Your task to perform on an android device: Open internet settings Image 0: 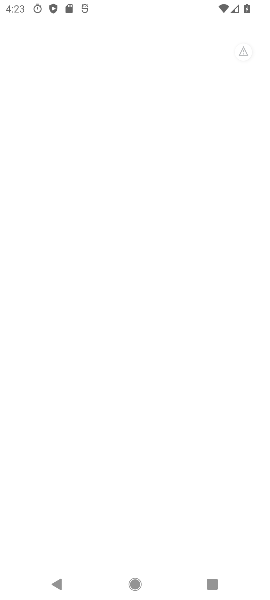
Step 0: press back button
Your task to perform on an android device: Open internet settings Image 1: 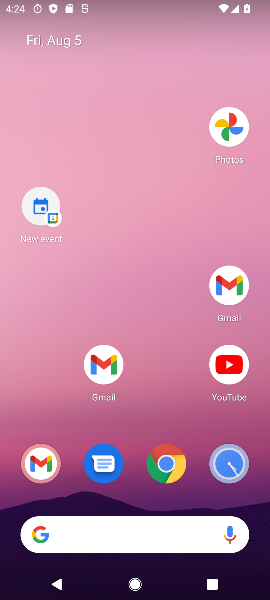
Step 1: drag from (117, 501) to (133, 183)
Your task to perform on an android device: Open internet settings Image 2: 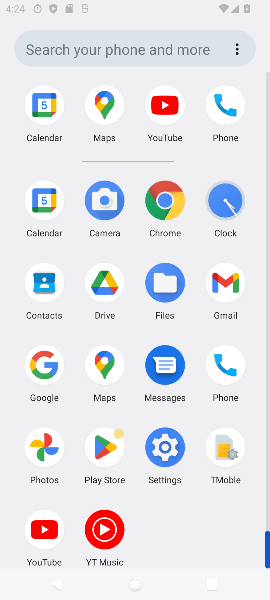
Step 2: drag from (225, 332) to (225, 56)
Your task to perform on an android device: Open internet settings Image 3: 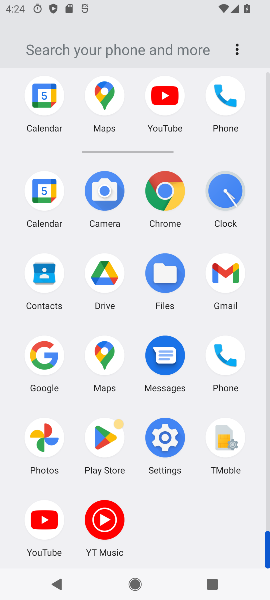
Step 3: click (169, 425)
Your task to perform on an android device: Open internet settings Image 4: 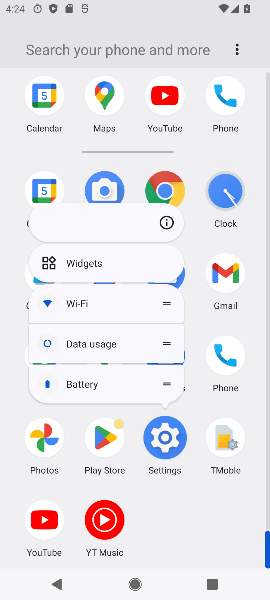
Step 4: click (165, 436)
Your task to perform on an android device: Open internet settings Image 5: 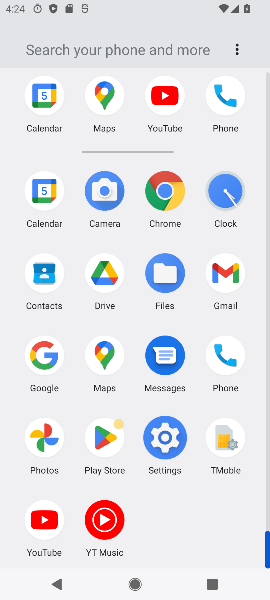
Step 5: click (165, 437)
Your task to perform on an android device: Open internet settings Image 6: 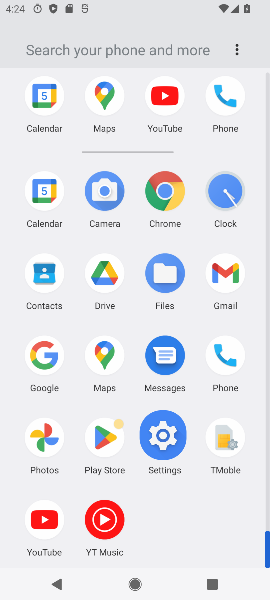
Step 6: click (164, 438)
Your task to perform on an android device: Open internet settings Image 7: 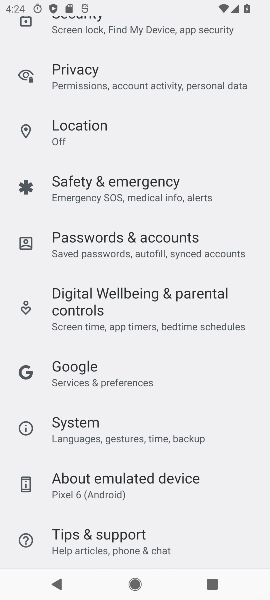
Step 7: click (164, 438)
Your task to perform on an android device: Open internet settings Image 8: 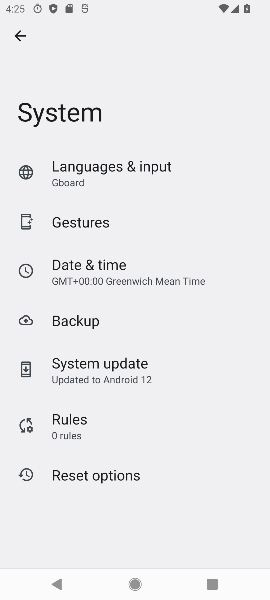
Step 8: click (15, 33)
Your task to perform on an android device: Open internet settings Image 9: 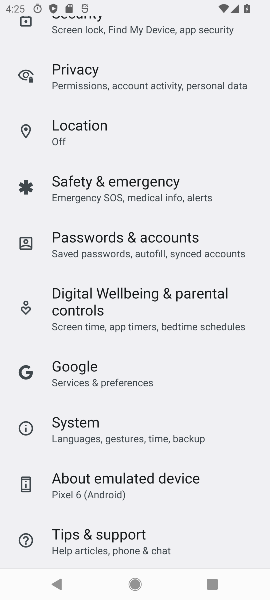
Step 9: drag from (92, 127) to (98, 384)
Your task to perform on an android device: Open internet settings Image 10: 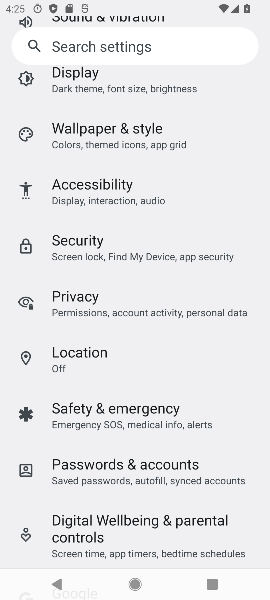
Step 10: drag from (76, 162) to (122, 410)
Your task to perform on an android device: Open internet settings Image 11: 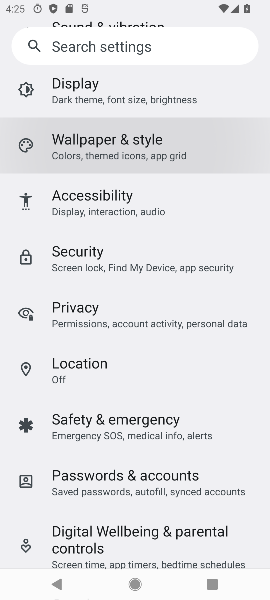
Step 11: drag from (79, 201) to (142, 431)
Your task to perform on an android device: Open internet settings Image 12: 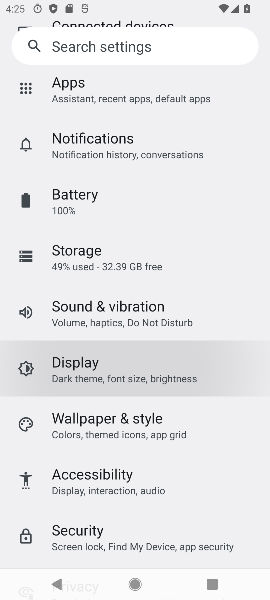
Step 12: drag from (87, 177) to (124, 432)
Your task to perform on an android device: Open internet settings Image 13: 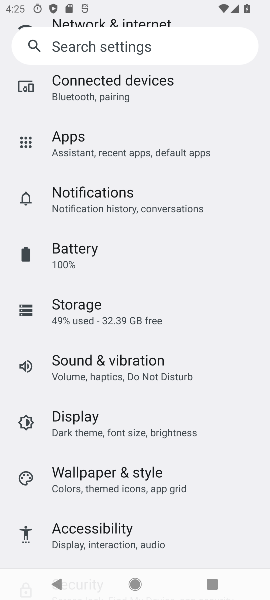
Step 13: drag from (76, 188) to (117, 409)
Your task to perform on an android device: Open internet settings Image 14: 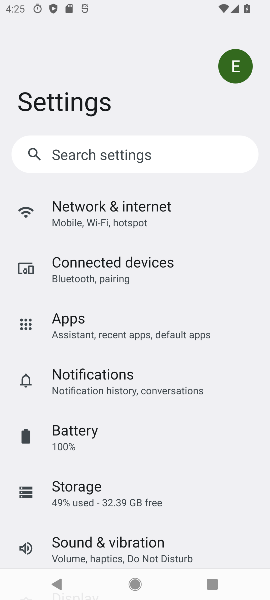
Step 14: drag from (121, 199) to (137, 443)
Your task to perform on an android device: Open internet settings Image 15: 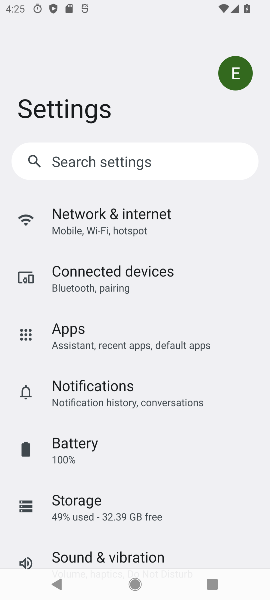
Step 15: drag from (98, 240) to (98, 424)
Your task to perform on an android device: Open internet settings Image 16: 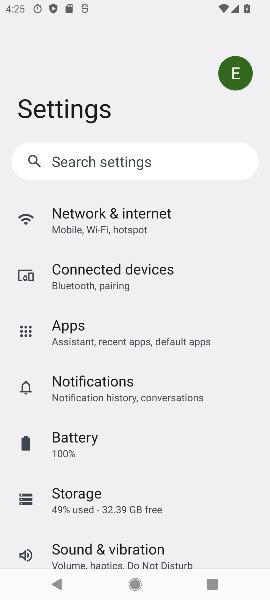
Step 16: click (105, 224)
Your task to perform on an android device: Open internet settings Image 17: 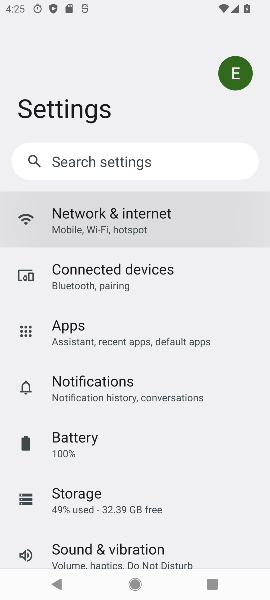
Step 17: click (102, 223)
Your task to perform on an android device: Open internet settings Image 18: 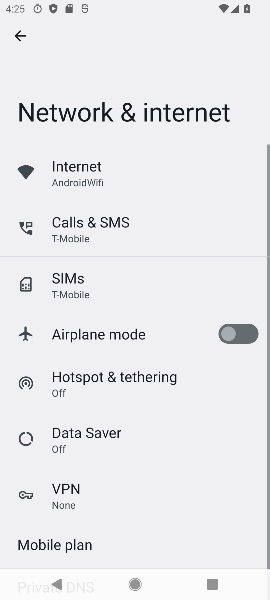
Step 18: click (102, 222)
Your task to perform on an android device: Open internet settings Image 19: 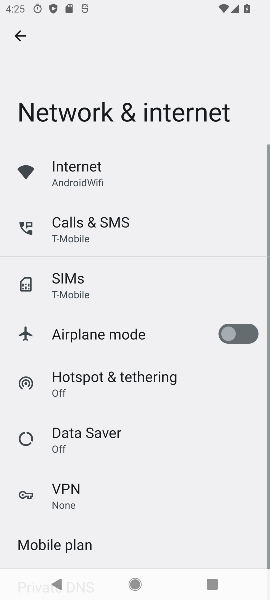
Step 19: click (68, 172)
Your task to perform on an android device: Open internet settings Image 20: 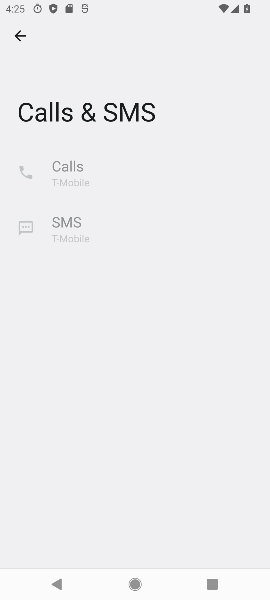
Step 20: click (68, 173)
Your task to perform on an android device: Open internet settings Image 21: 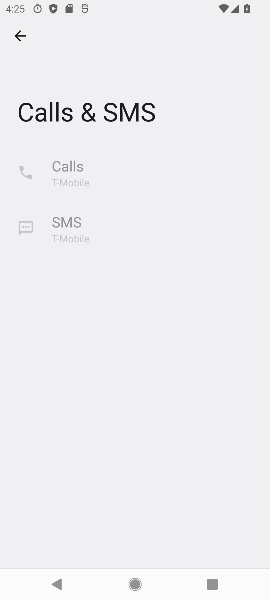
Step 21: click (68, 173)
Your task to perform on an android device: Open internet settings Image 22: 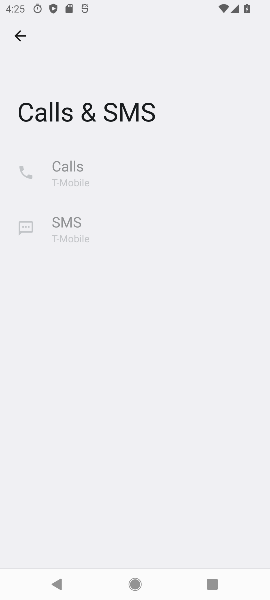
Step 22: click (21, 35)
Your task to perform on an android device: Open internet settings Image 23: 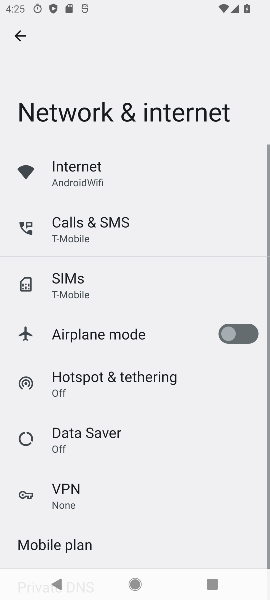
Step 23: click (78, 182)
Your task to perform on an android device: Open internet settings Image 24: 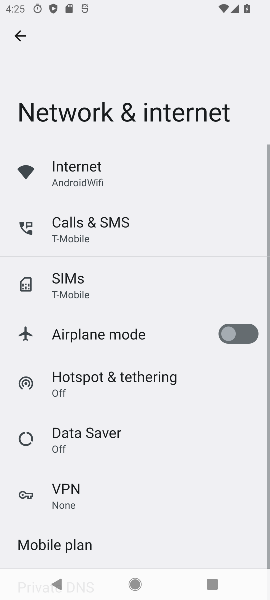
Step 24: click (83, 178)
Your task to perform on an android device: Open internet settings Image 25: 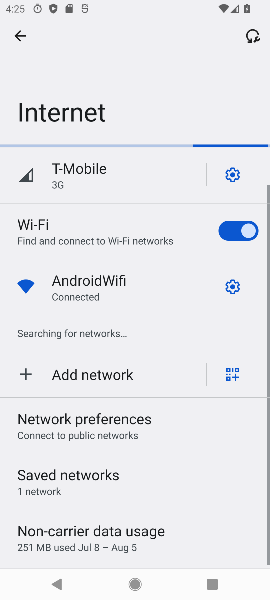
Step 25: task complete